Your task to perform on an android device: When is my next meeting? Image 0: 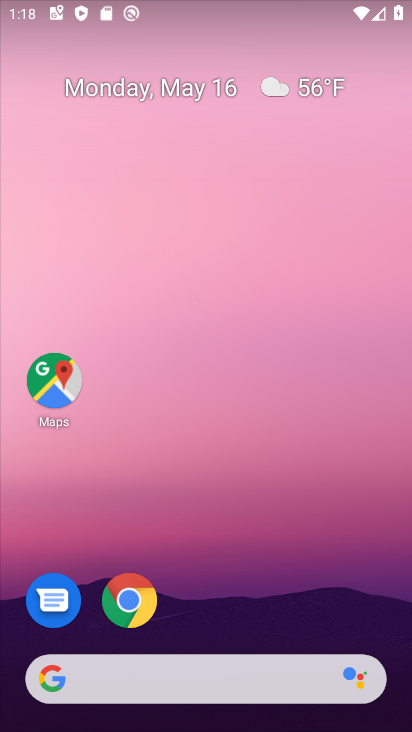
Step 0: drag from (336, 594) to (358, 49)
Your task to perform on an android device: When is my next meeting? Image 1: 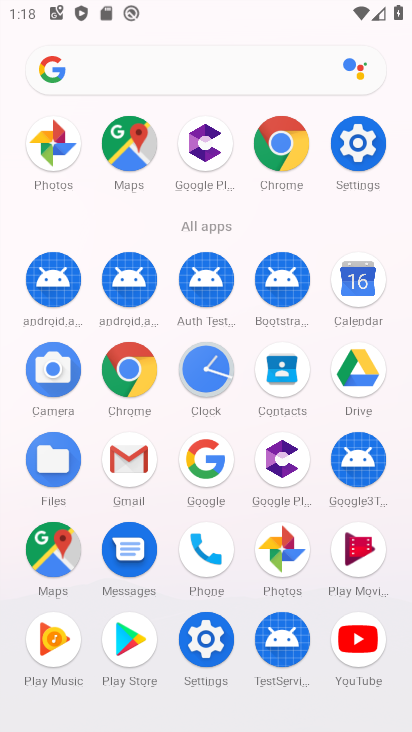
Step 1: click (363, 304)
Your task to perform on an android device: When is my next meeting? Image 2: 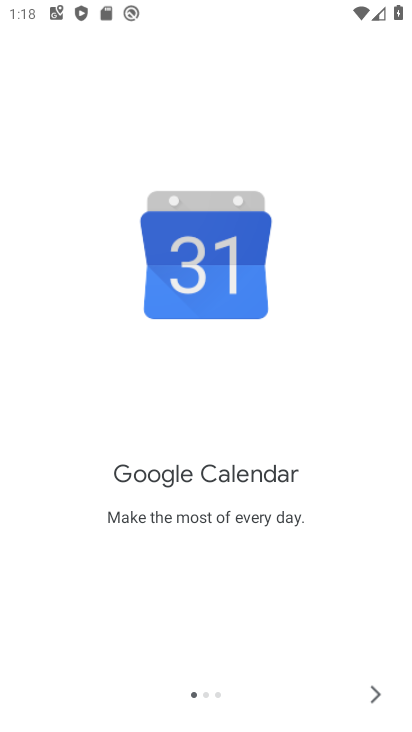
Step 2: click (367, 688)
Your task to perform on an android device: When is my next meeting? Image 3: 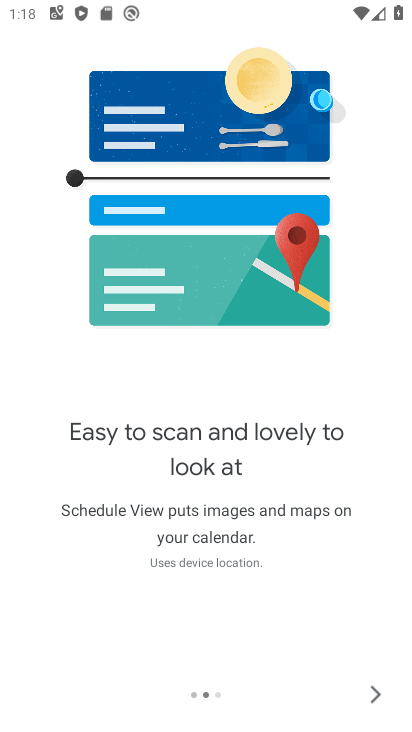
Step 3: click (367, 688)
Your task to perform on an android device: When is my next meeting? Image 4: 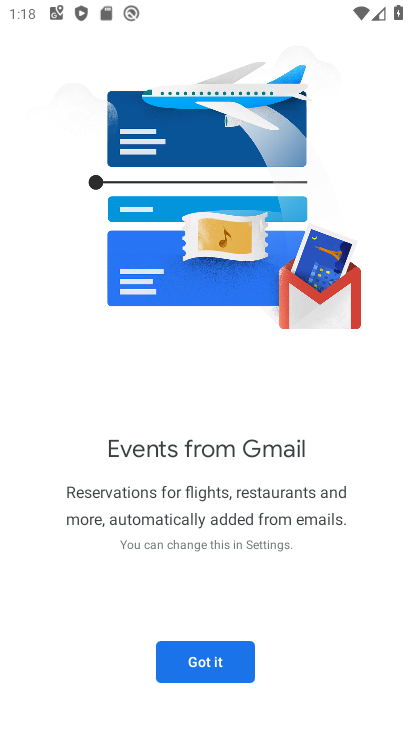
Step 4: click (215, 668)
Your task to perform on an android device: When is my next meeting? Image 5: 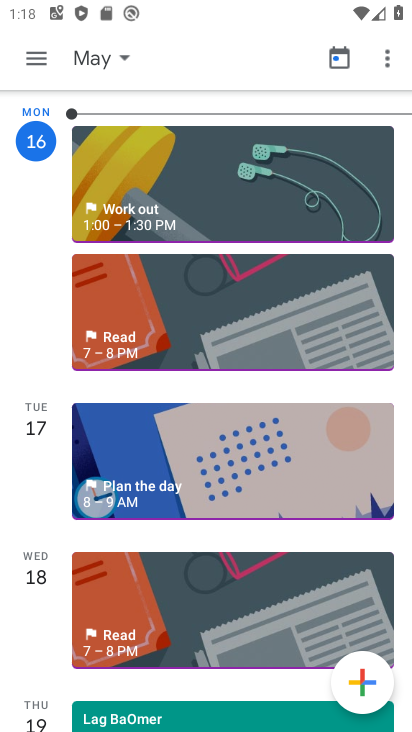
Step 5: task complete